Your task to perform on an android device: set default search engine in the chrome app Image 0: 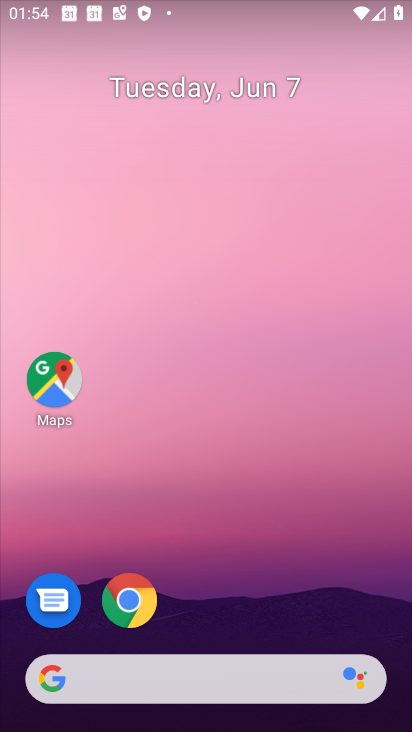
Step 0: click (128, 604)
Your task to perform on an android device: set default search engine in the chrome app Image 1: 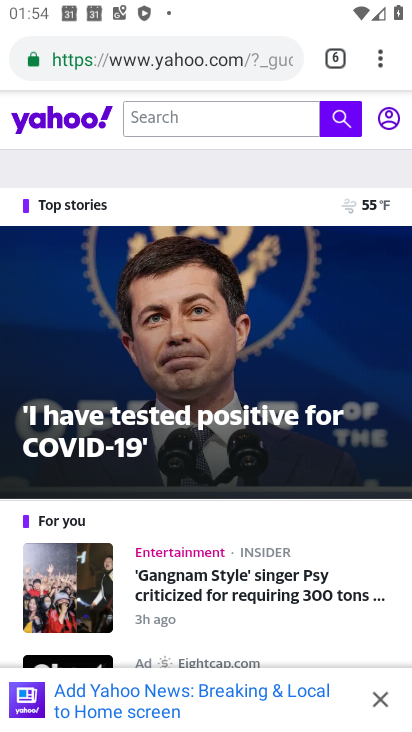
Step 1: click (380, 65)
Your task to perform on an android device: set default search engine in the chrome app Image 2: 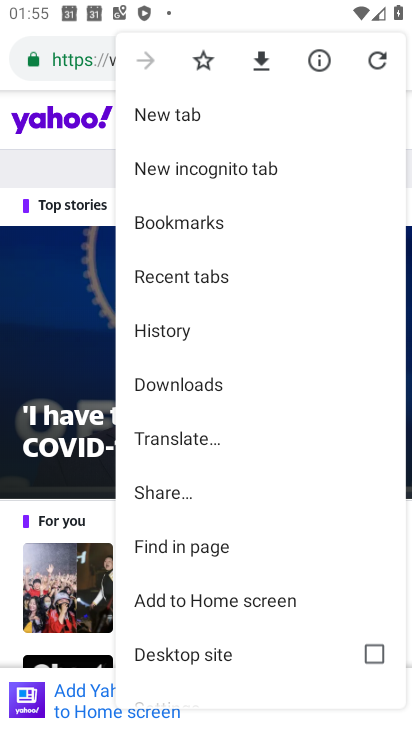
Step 2: drag from (175, 303) to (175, 213)
Your task to perform on an android device: set default search engine in the chrome app Image 3: 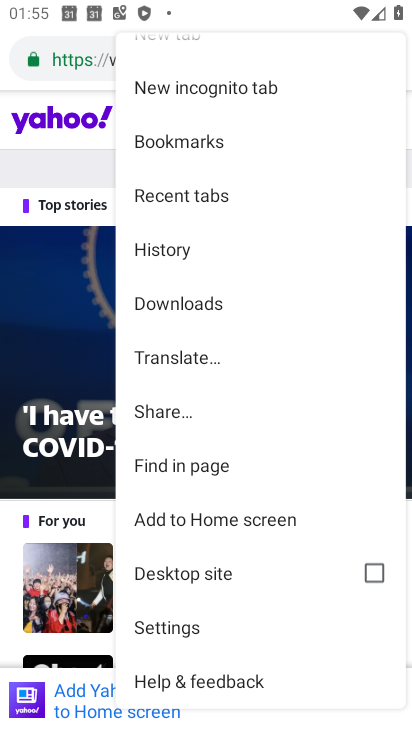
Step 3: click (168, 618)
Your task to perform on an android device: set default search engine in the chrome app Image 4: 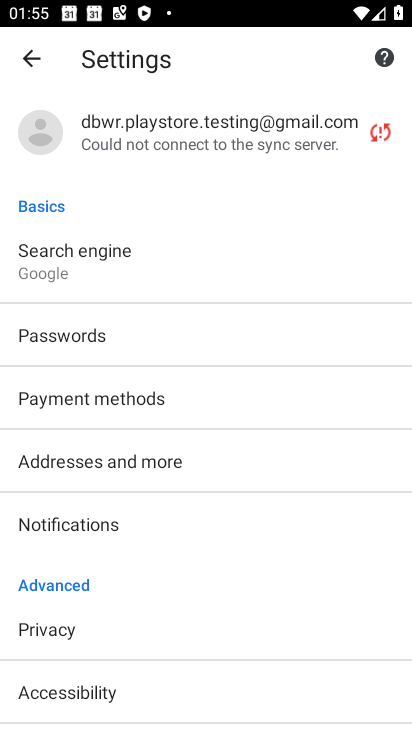
Step 4: click (74, 265)
Your task to perform on an android device: set default search engine in the chrome app Image 5: 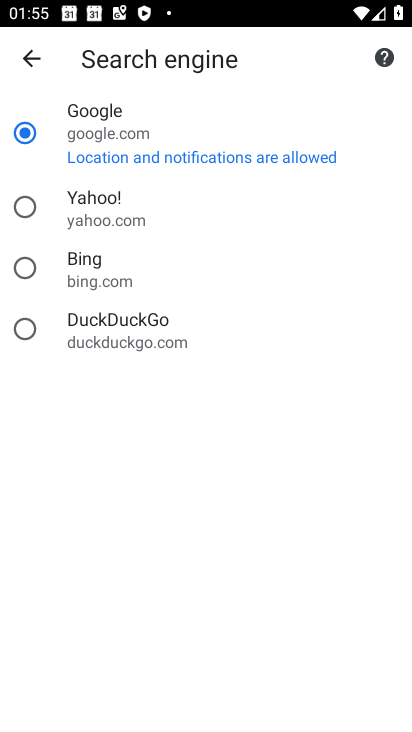
Step 5: click (28, 215)
Your task to perform on an android device: set default search engine in the chrome app Image 6: 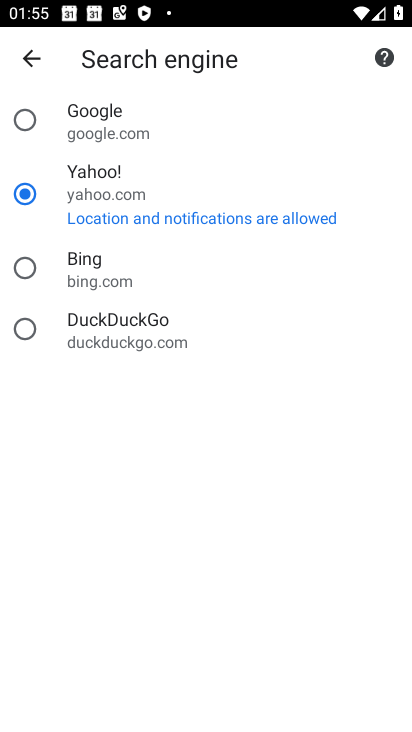
Step 6: task complete